Your task to perform on an android device: clear history in the chrome app Image 0: 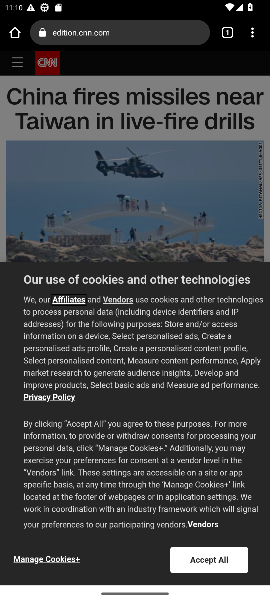
Step 0: click (248, 31)
Your task to perform on an android device: clear history in the chrome app Image 1: 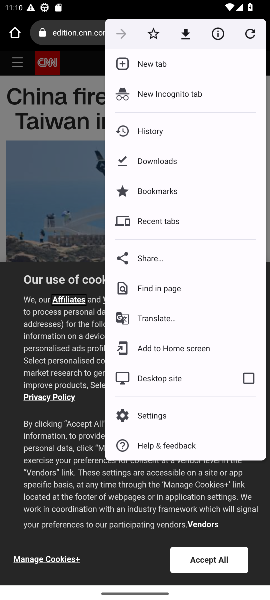
Step 1: click (171, 127)
Your task to perform on an android device: clear history in the chrome app Image 2: 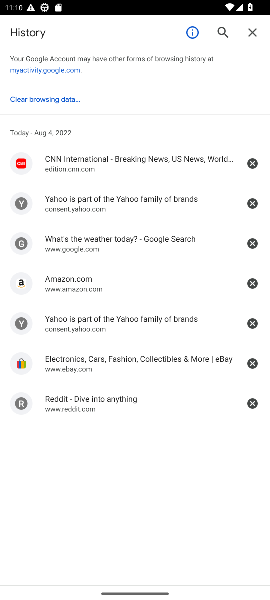
Step 2: click (36, 101)
Your task to perform on an android device: clear history in the chrome app Image 3: 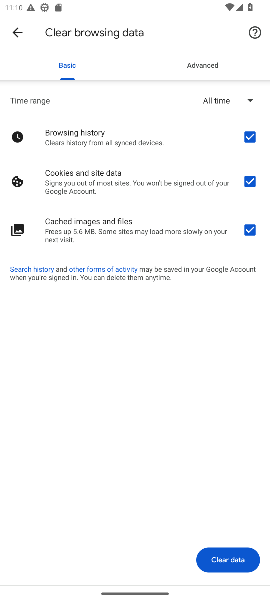
Step 3: click (225, 558)
Your task to perform on an android device: clear history in the chrome app Image 4: 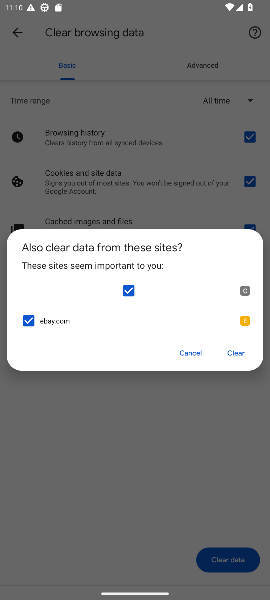
Step 4: click (238, 351)
Your task to perform on an android device: clear history in the chrome app Image 5: 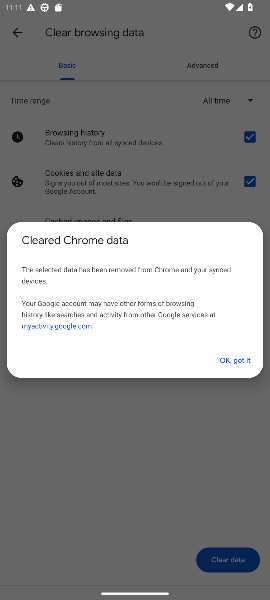
Step 5: click (238, 360)
Your task to perform on an android device: clear history in the chrome app Image 6: 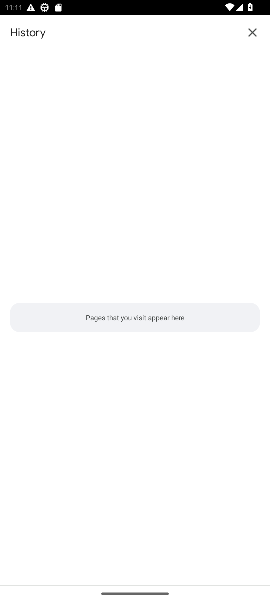
Step 6: task complete